Your task to perform on an android device: When is my next meeting? Image 0: 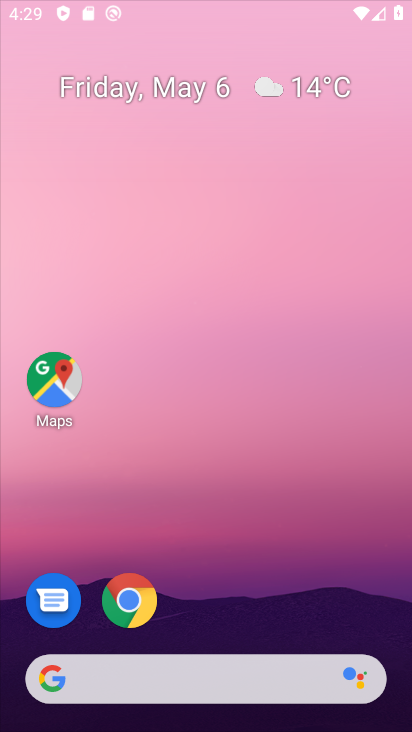
Step 0: press home button
Your task to perform on an android device: When is my next meeting? Image 1: 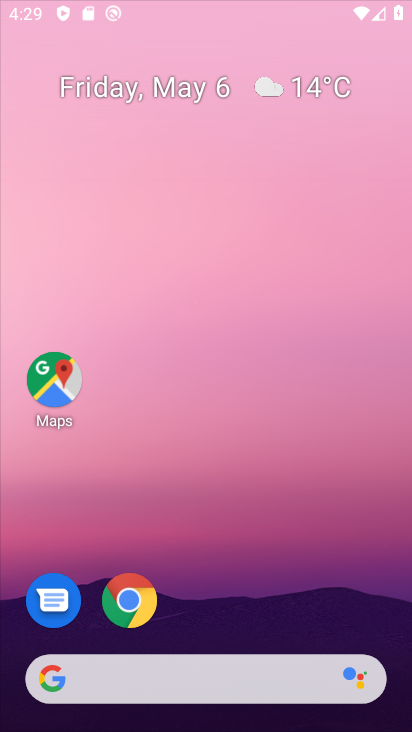
Step 1: click (394, 701)
Your task to perform on an android device: When is my next meeting? Image 2: 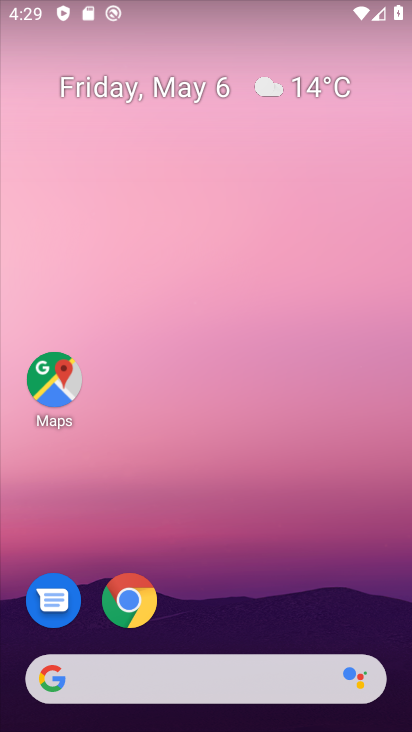
Step 2: drag from (246, 582) to (268, 89)
Your task to perform on an android device: When is my next meeting? Image 3: 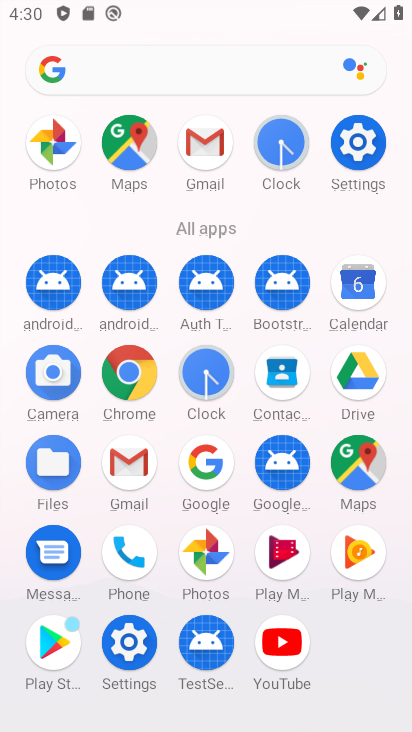
Step 3: click (359, 298)
Your task to perform on an android device: When is my next meeting? Image 4: 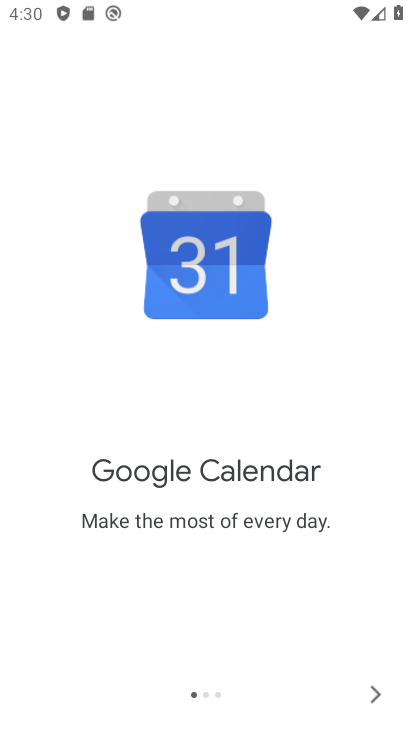
Step 4: click (370, 688)
Your task to perform on an android device: When is my next meeting? Image 5: 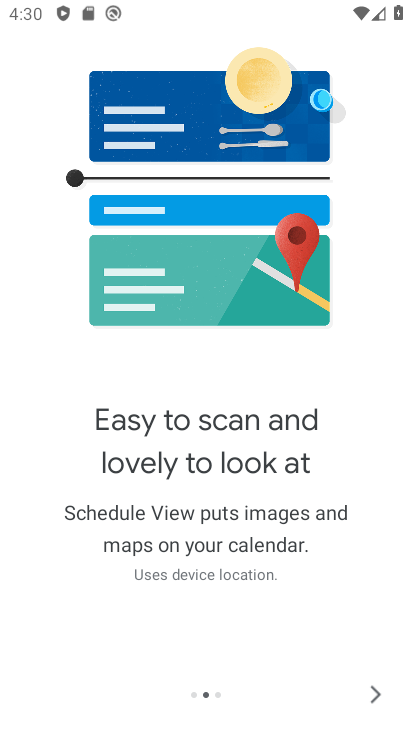
Step 5: click (368, 701)
Your task to perform on an android device: When is my next meeting? Image 6: 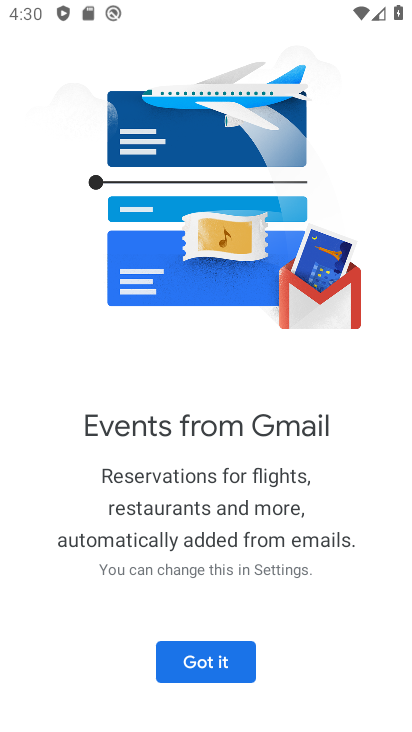
Step 6: click (195, 673)
Your task to perform on an android device: When is my next meeting? Image 7: 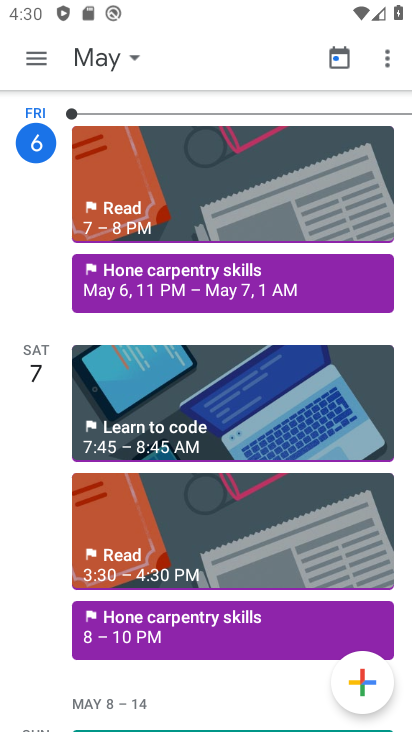
Step 7: click (97, 61)
Your task to perform on an android device: When is my next meeting? Image 8: 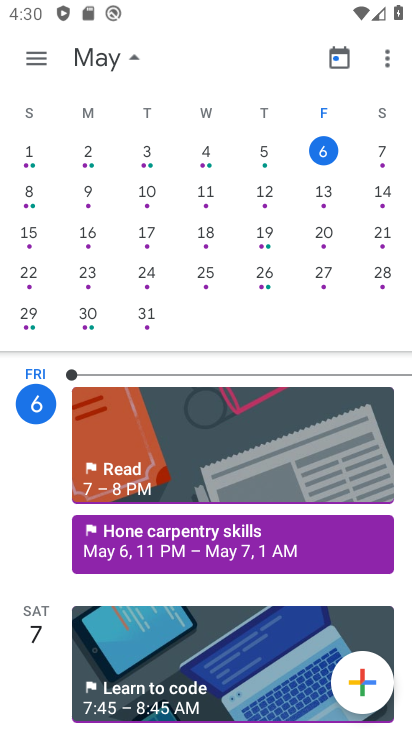
Step 8: click (373, 155)
Your task to perform on an android device: When is my next meeting? Image 9: 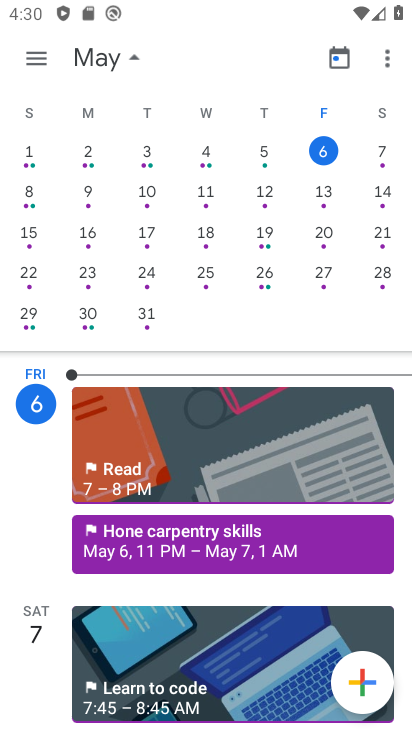
Step 9: click (380, 163)
Your task to perform on an android device: When is my next meeting? Image 10: 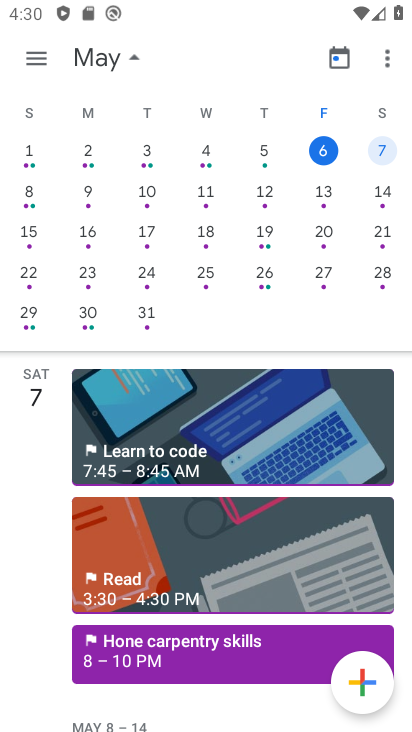
Step 10: click (20, 203)
Your task to perform on an android device: When is my next meeting? Image 11: 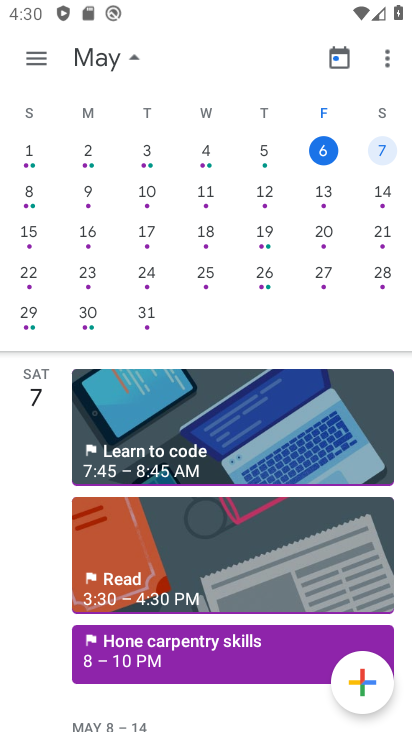
Step 11: click (31, 207)
Your task to perform on an android device: When is my next meeting? Image 12: 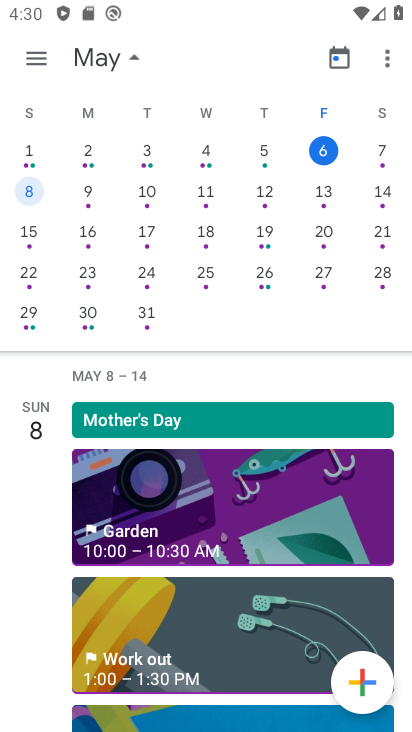
Step 12: task complete